Your task to perform on an android device: Go to Amazon Image 0: 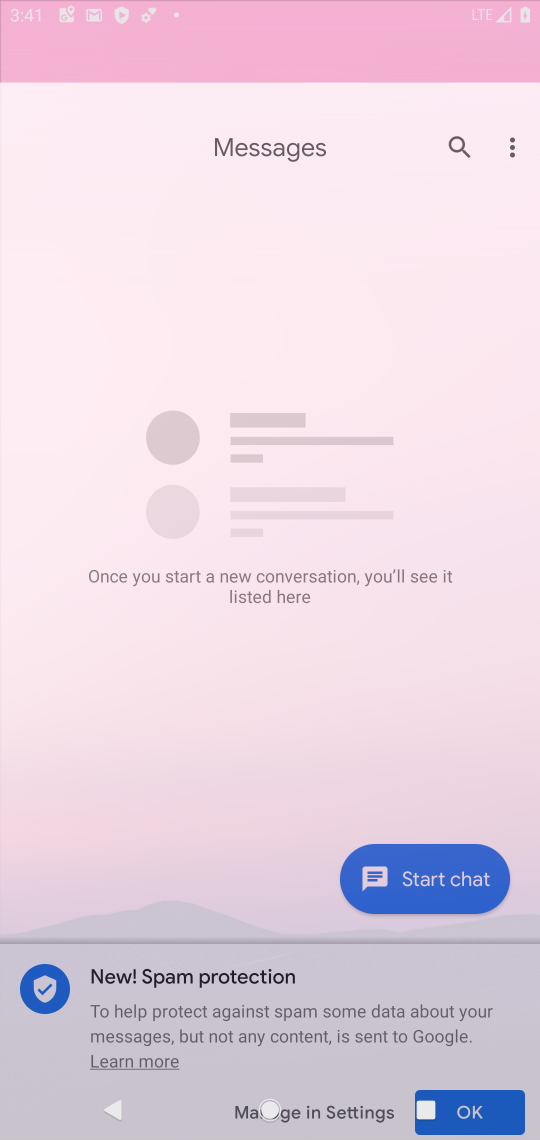
Step 0: click (294, 211)
Your task to perform on an android device: Go to Amazon Image 1: 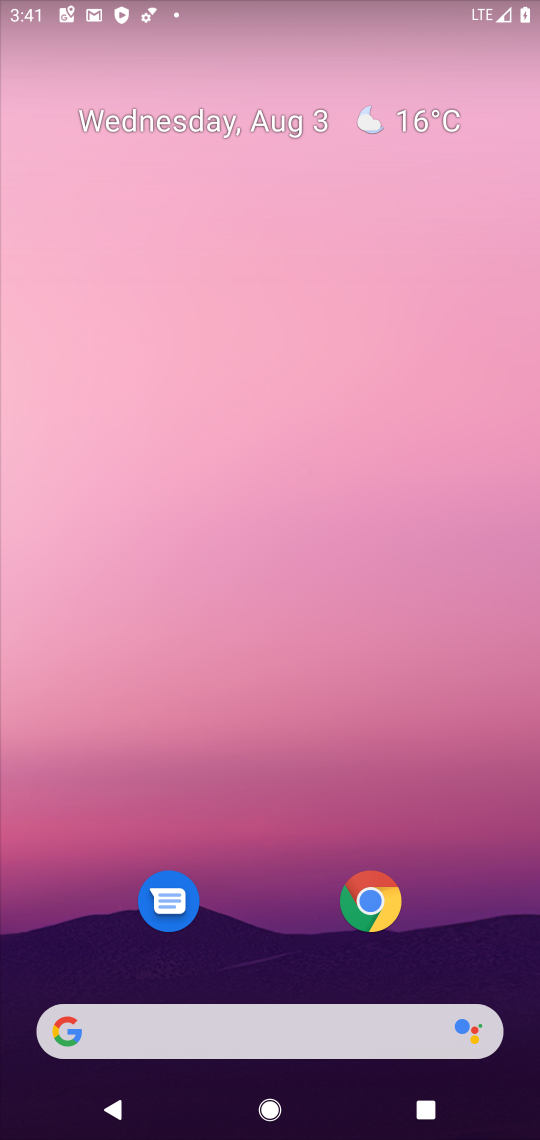
Step 1: drag from (335, 813) to (342, 79)
Your task to perform on an android device: Go to Amazon Image 2: 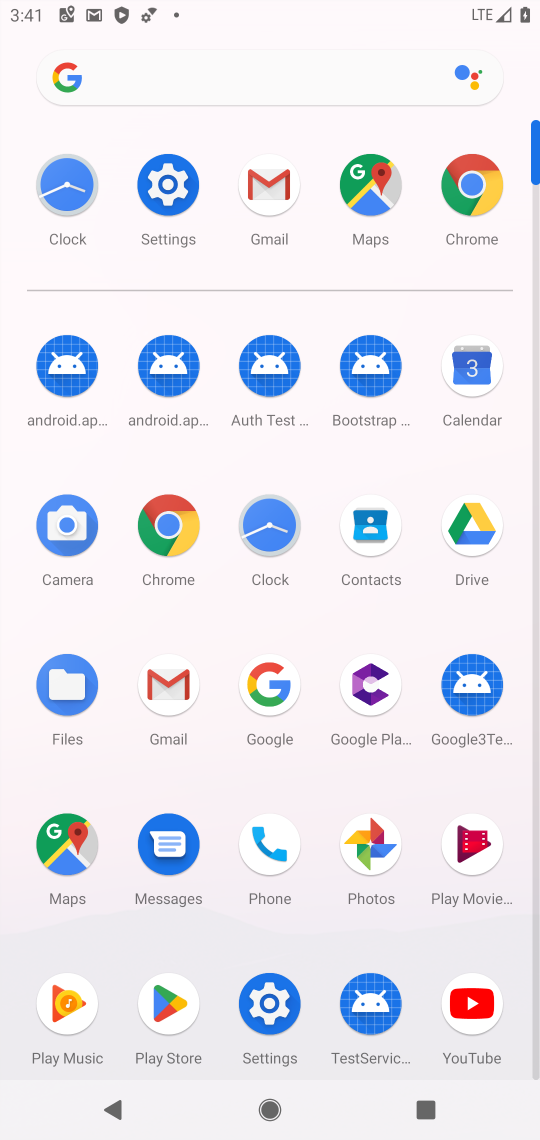
Step 2: click (178, 524)
Your task to perform on an android device: Go to Amazon Image 3: 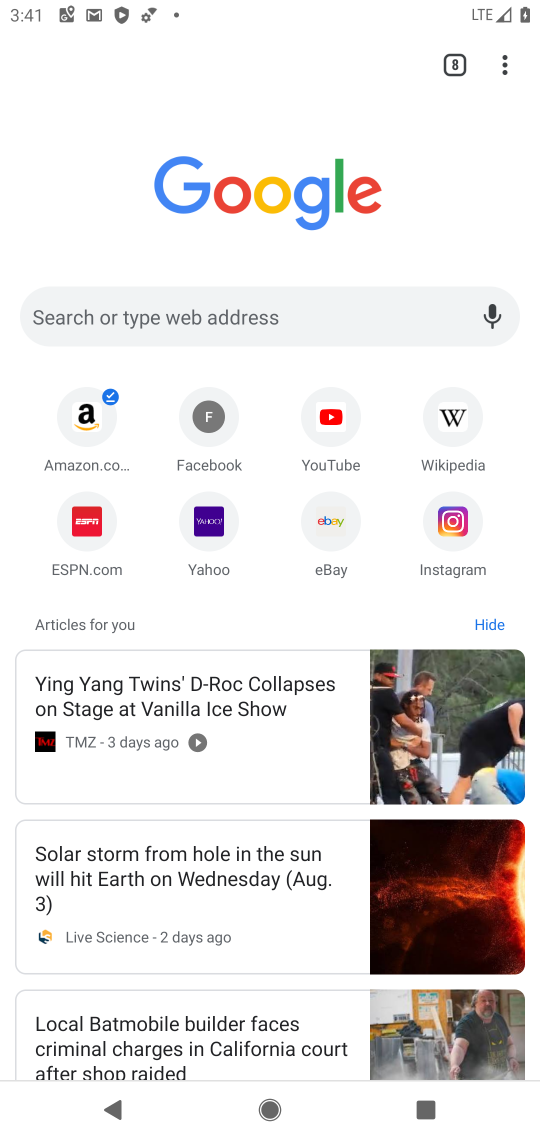
Step 3: click (110, 429)
Your task to perform on an android device: Go to Amazon Image 4: 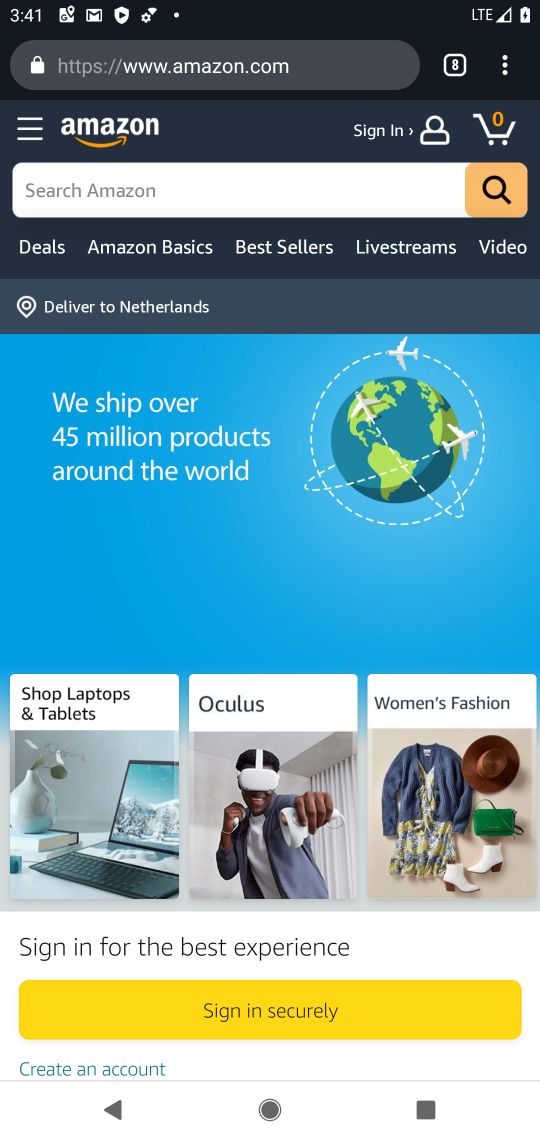
Step 4: task complete